Your task to perform on an android device: Show me recent news Image 0: 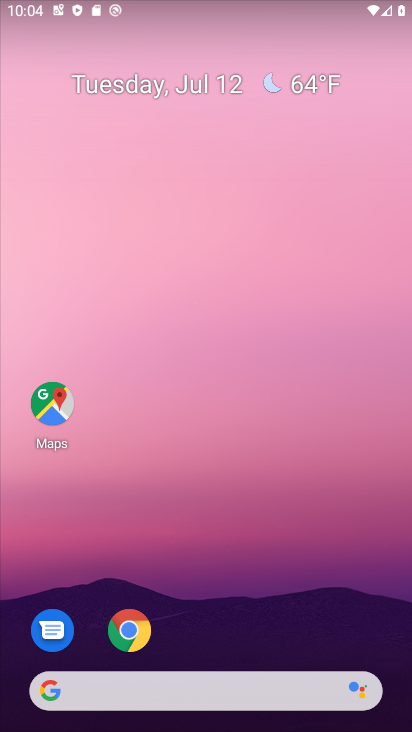
Step 0: drag from (321, 578) to (347, 3)
Your task to perform on an android device: Show me recent news Image 1: 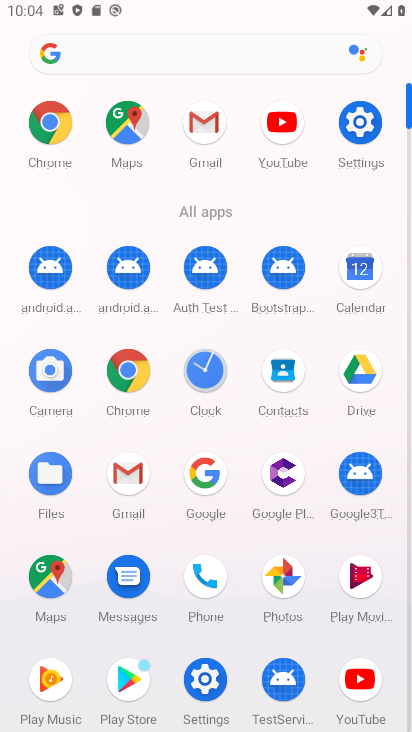
Step 1: click (46, 114)
Your task to perform on an android device: Show me recent news Image 2: 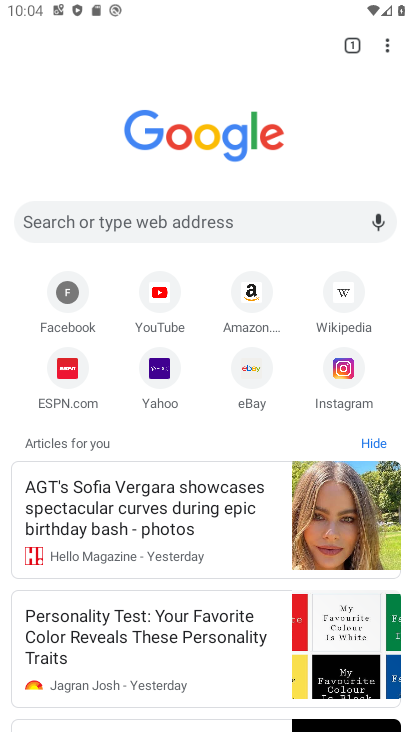
Step 2: task complete